Your task to perform on an android device: Open accessibility settings Image 0: 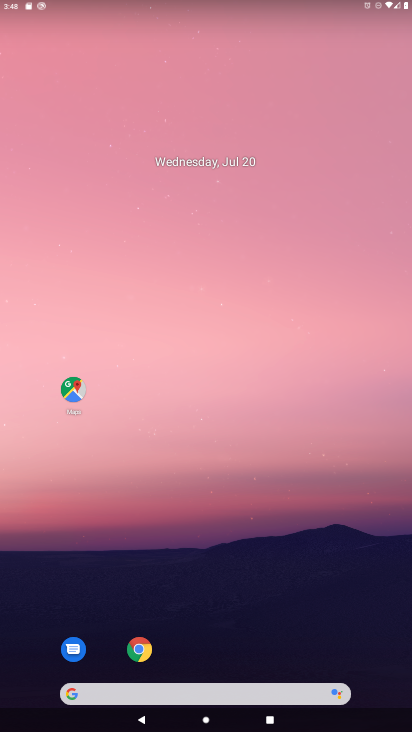
Step 0: drag from (184, 695) to (248, 75)
Your task to perform on an android device: Open accessibility settings Image 1: 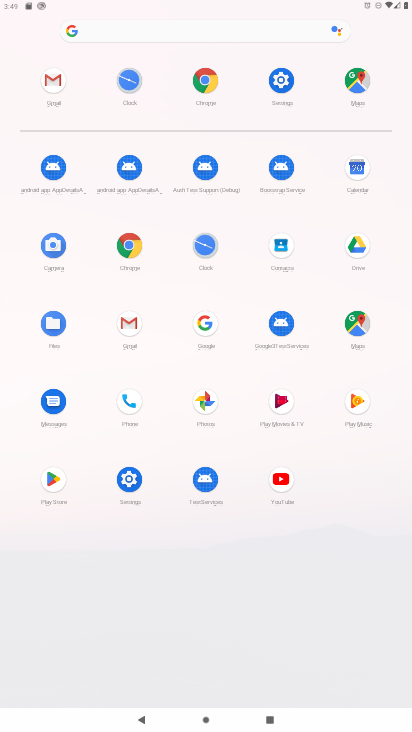
Step 1: click (281, 80)
Your task to perform on an android device: Open accessibility settings Image 2: 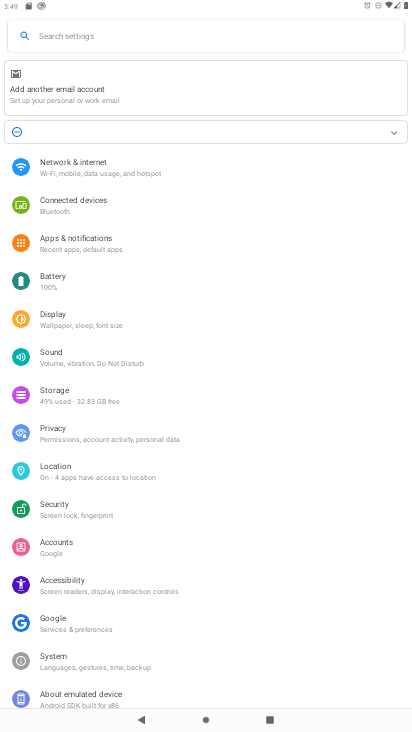
Step 2: click (57, 583)
Your task to perform on an android device: Open accessibility settings Image 3: 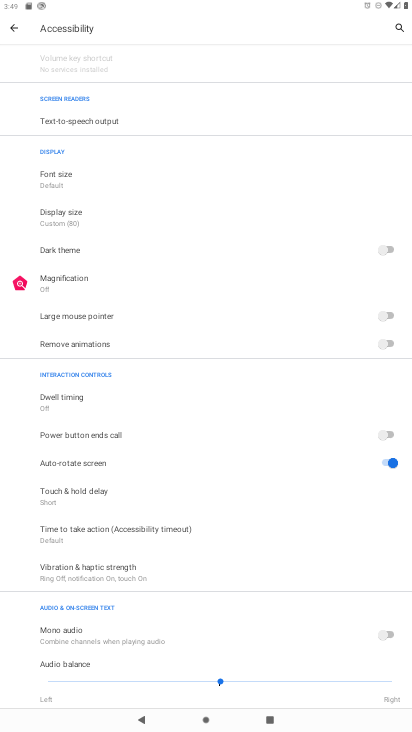
Step 3: task complete